Your task to perform on an android device: Show me productivity apps on the Play Store Image 0: 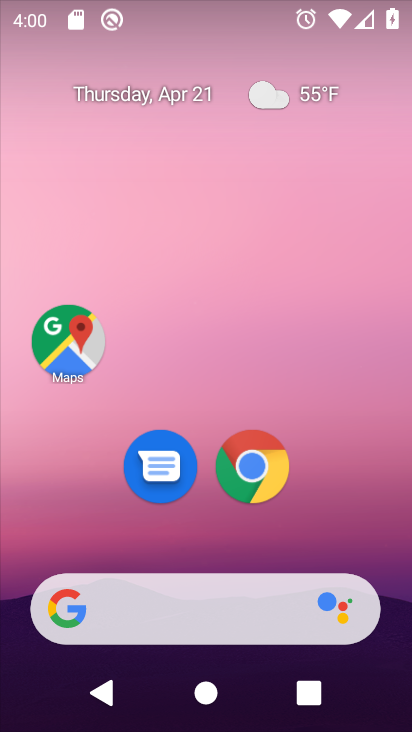
Step 0: drag from (246, 448) to (293, 132)
Your task to perform on an android device: Show me productivity apps on the Play Store Image 1: 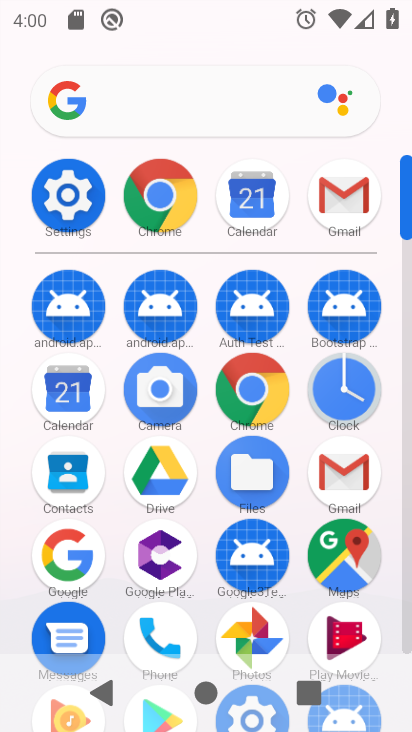
Step 1: drag from (229, 554) to (277, 140)
Your task to perform on an android device: Show me productivity apps on the Play Store Image 2: 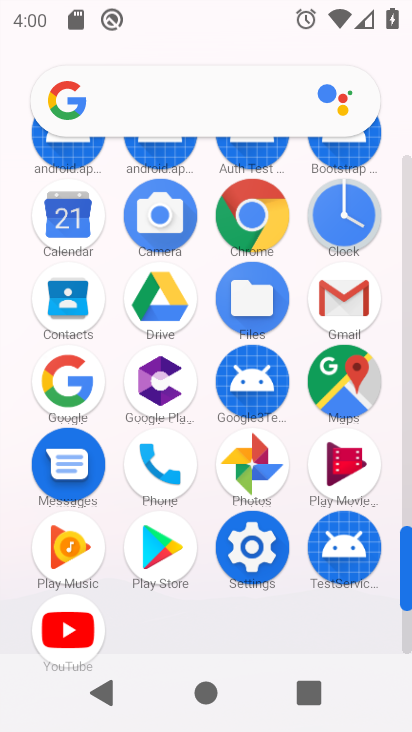
Step 2: click (154, 557)
Your task to perform on an android device: Show me productivity apps on the Play Store Image 3: 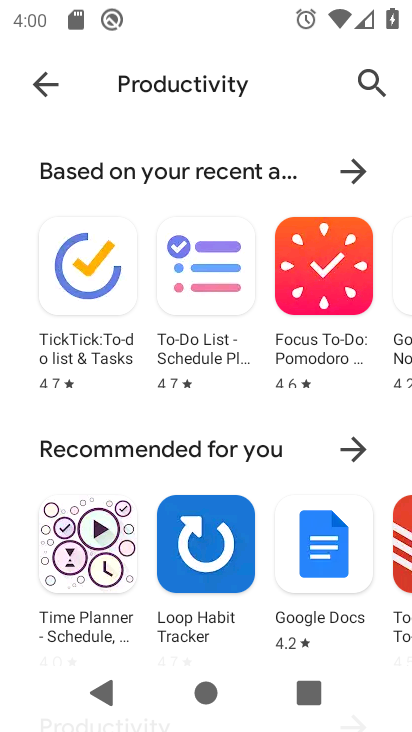
Step 3: task complete